Your task to perform on an android device: Go to internet settings Image 0: 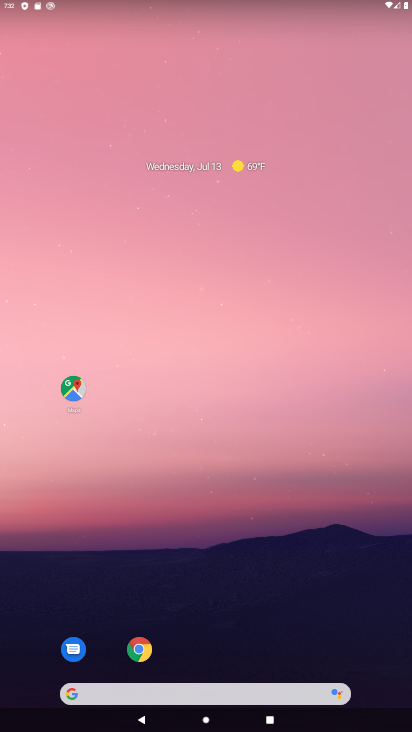
Step 0: drag from (202, 689) to (292, 177)
Your task to perform on an android device: Go to internet settings Image 1: 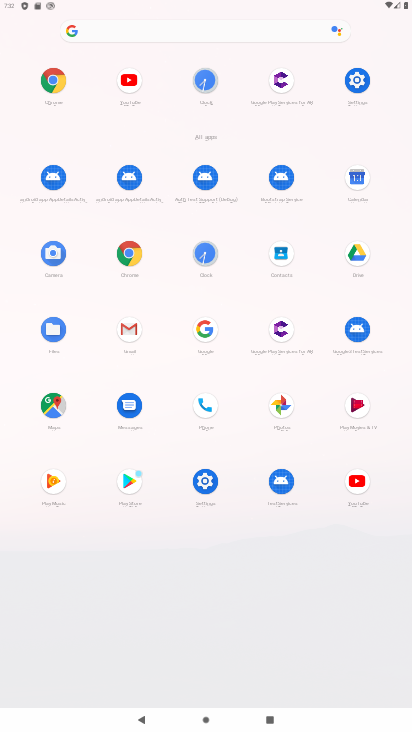
Step 1: click (358, 79)
Your task to perform on an android device: Go to internet settings Image 2: 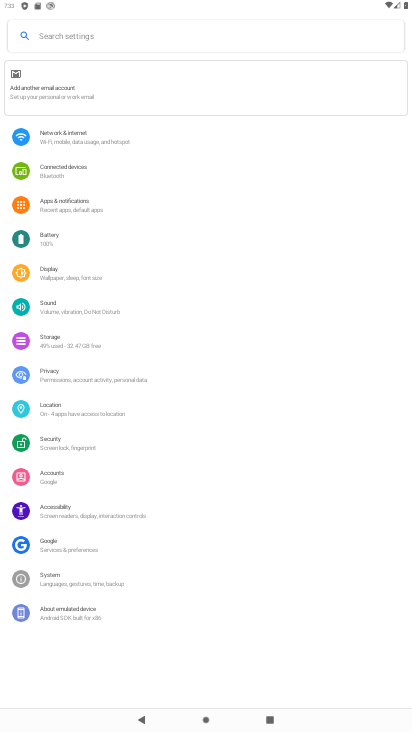
Step 2: click (89, 133)
Your task to perform on an android device: Go to internet settings Image 3: 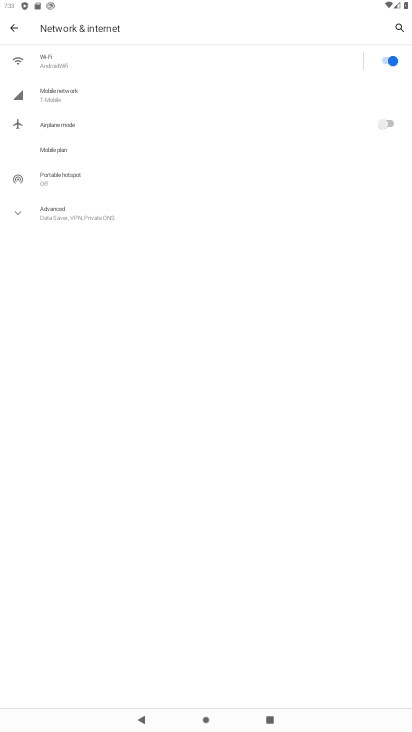
Step 3: task complete